Your task to perform on an android device: check out phone information Image 0: 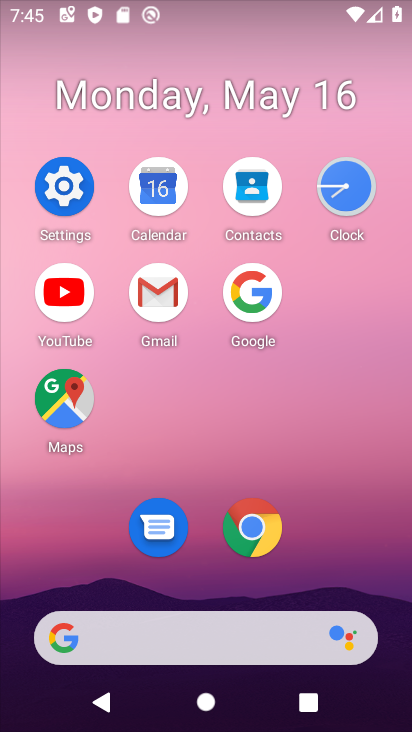
Step 0: click (48, 166)
Your task to perform on an android device: check out phone information Image 1: 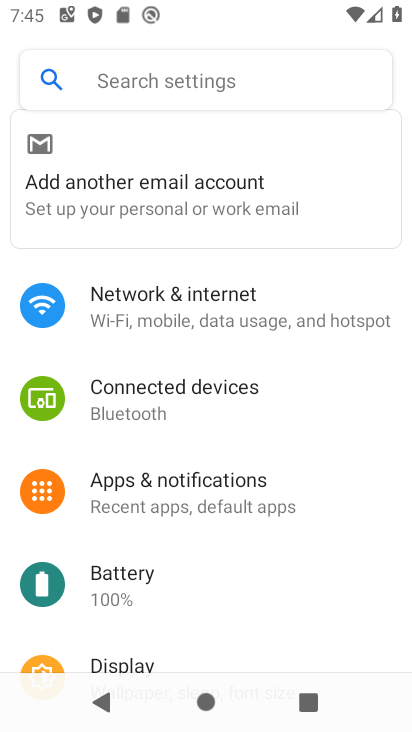
Step 1: drag from (234, 564) to (236, 118)
Your task to perform on an android device: check out phone information Image 2: 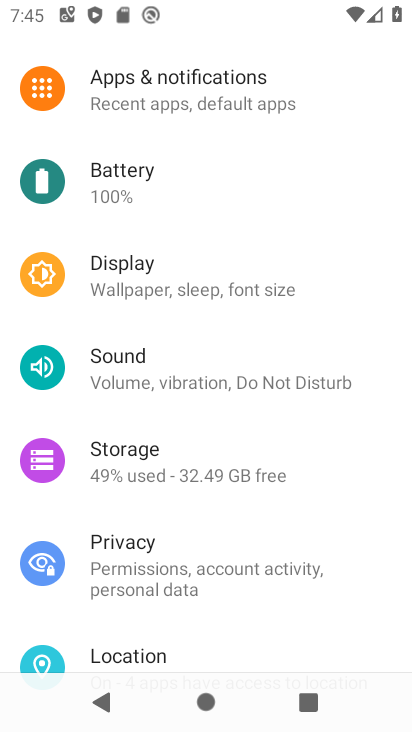
Step 2: drag from (278, 606) to (217, 92)
Your task to perform on an android device: check out phone information Image 3: 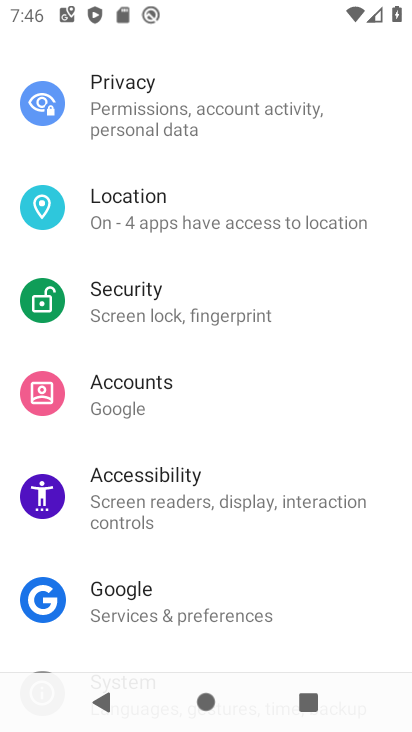
Step 3: drag from (265, 609) to (233, 94)
Your task to perform on an android device: check out phone information Image 4: 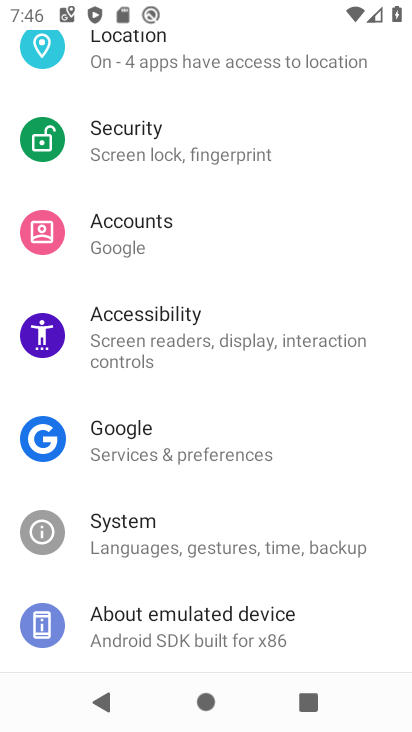
Step 4: drag from (286, 592) to (263, 208)
Your task to perform on an android device: check out phone information Image 5: 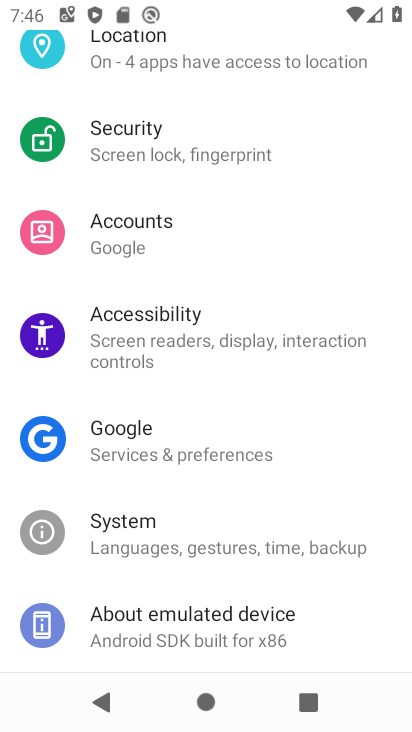
Step 5: click (269, 623)
Your task to perform on an android device: check out phone information Image 6: 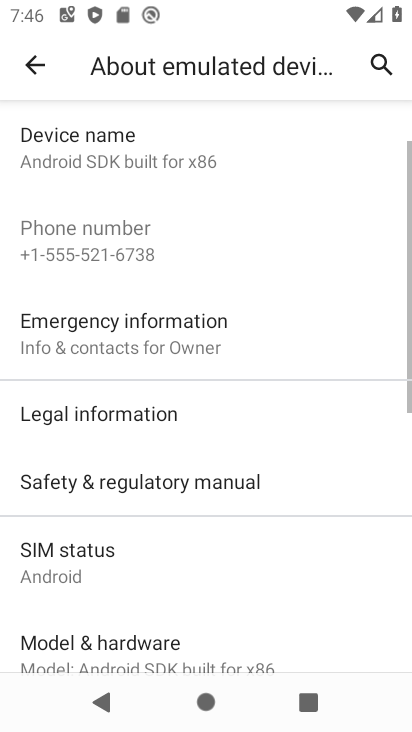
Step 6: click (97, 644)
Your task to perform on an android device: check out phone information Image 7: 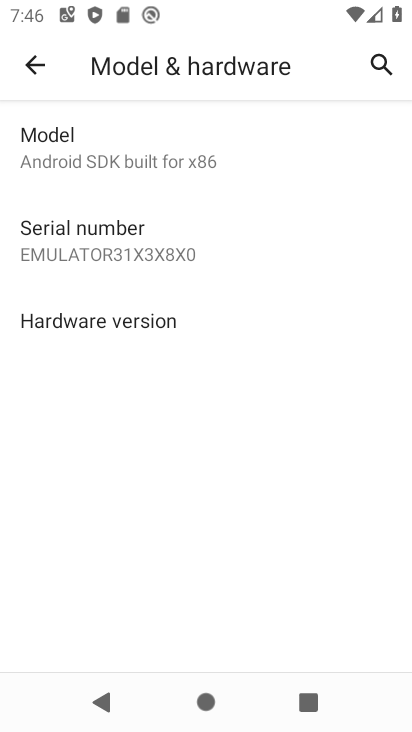
Step 7: task complete